Your task to perform on an android device: toggle translation in the chrome app Image 0: 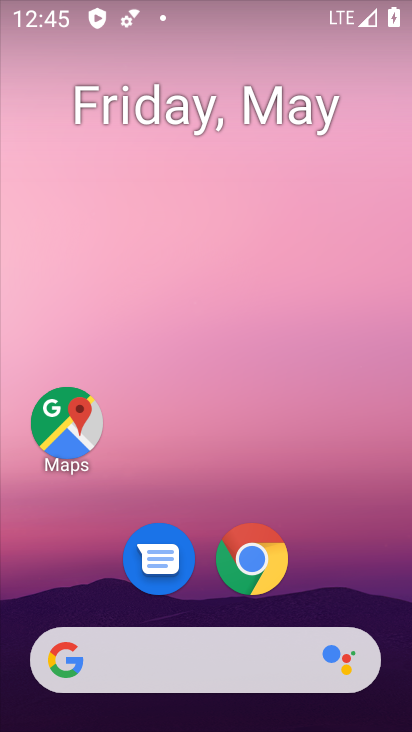
Step 0: drag from (364, 573) to (397, 115)
Your task to perform on an android device: toggle translation in the chrome app Image 1: 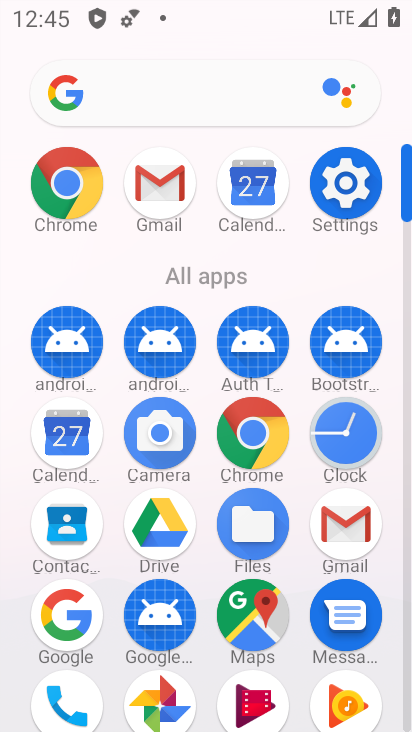
Step 1: click (255, 439)
Your task to perform on an android device: toggle translation in the chrome app Image 2: 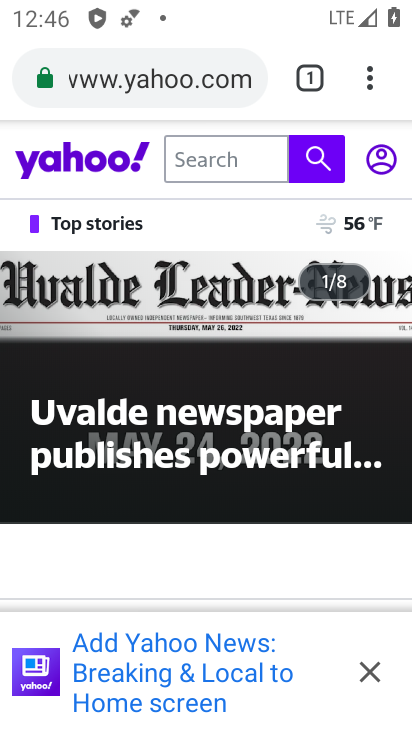
Step 2: drag from (378, 73) to (128, 617)
Your task to perform on an android device: toggle translation in the chrome app Image 3: 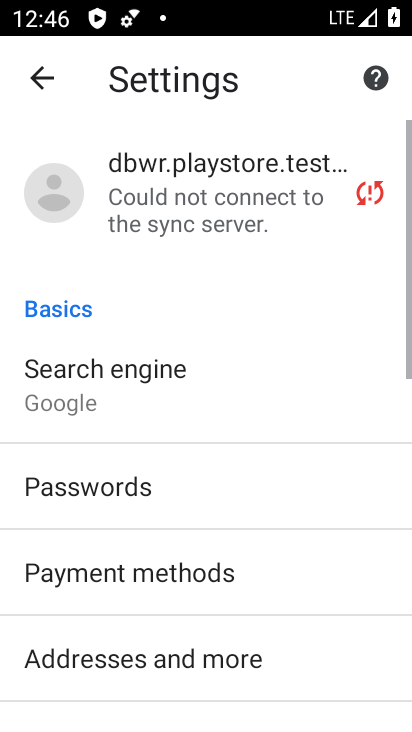
Step 3: drag from (131, 612) to (379, 42)
Your task to perform on an android device: toggle translation in the chrome app Image 4: 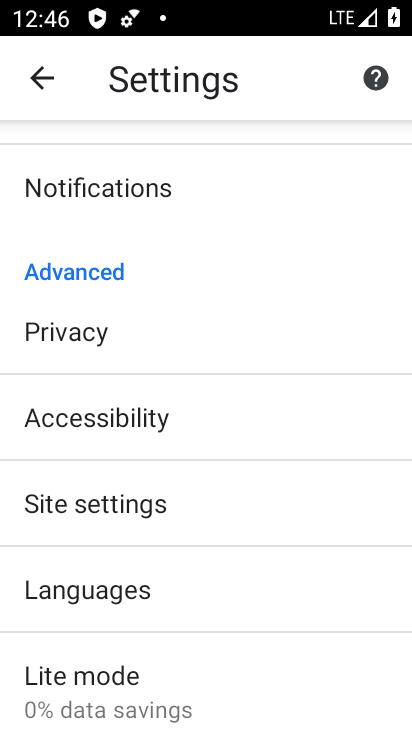
Step 4: click (126, 592)
Your task to perform on an android device: toggle translation in the chrome app Image 5: 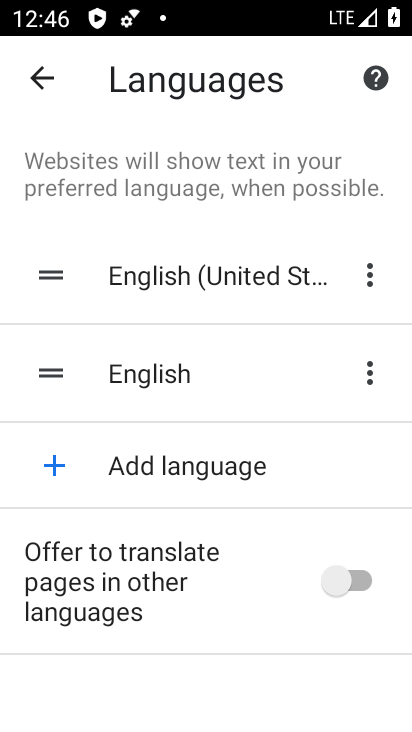
Step 5: click (331, 574)
Your task to perform on an android device: toggle translation in the chrome app Image 6: 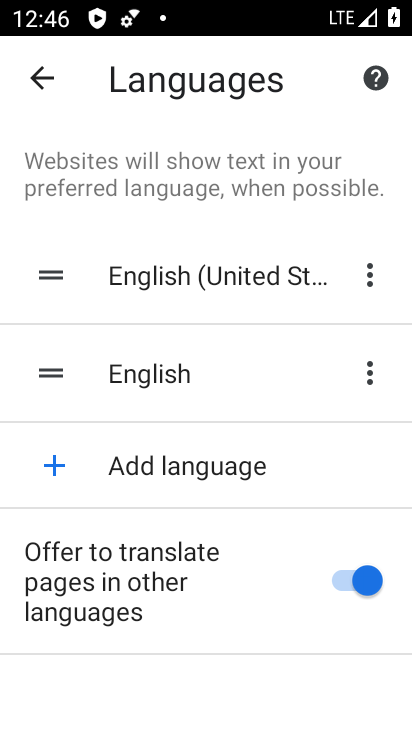
Step 6: task complete